Your task to perform on an android device: turn off priority inbox in the gmail app Image 0: 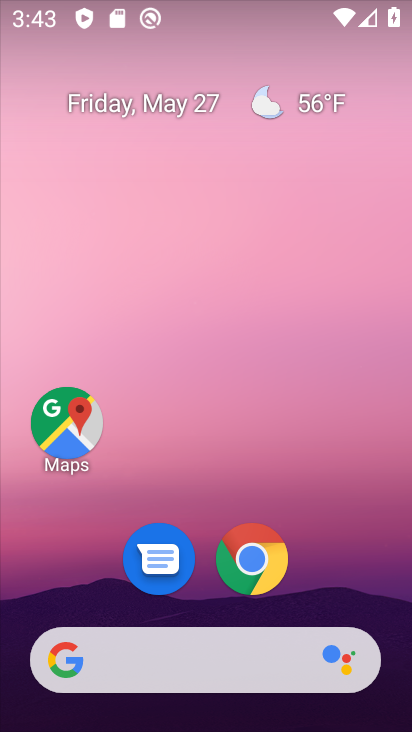
Step 0: drag from (70, 606) to (225, 222)
Your task to perform on an android device: turn off priority inbox in the gmail app Image 1: 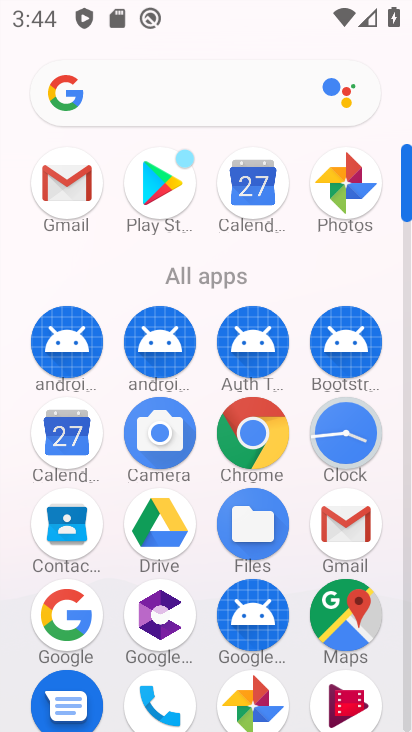
Step 1: drag from (152, 664) to (247, 456)
Your task to perform on an android device: turn off priority inbox in the gmail app Image 2: 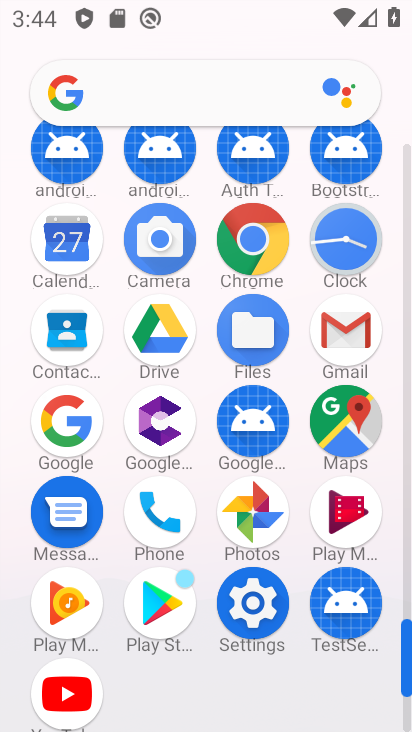
Step 2: click (358, 341)
Your task to perform on an android device: turn off priority inbox in the gmail app Image 3: 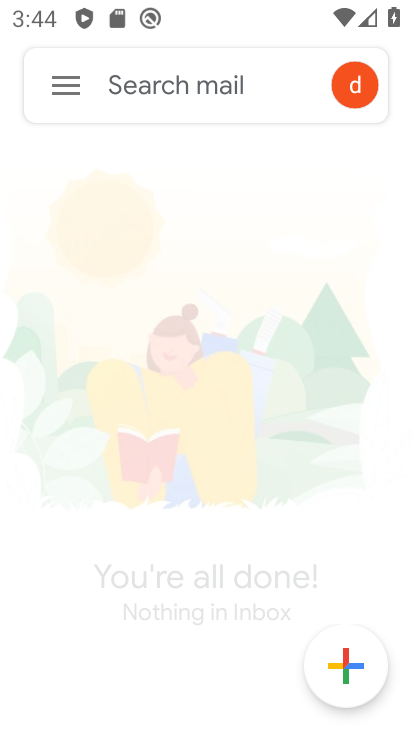
Step 3: click (51, 88)
Your task to perform on an android device: turn off priority inbox in the gmail app Image 4: 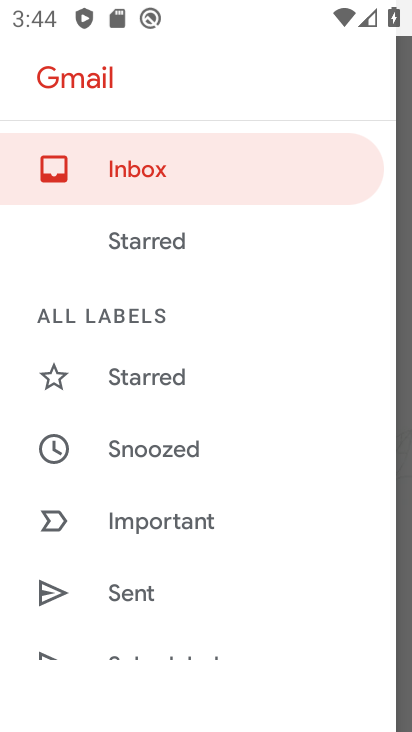
Step 4: drag from (137, 609) to (314, 155)
Your task to perform on an android device: turn off priority inbox in the gmail app Image 5: 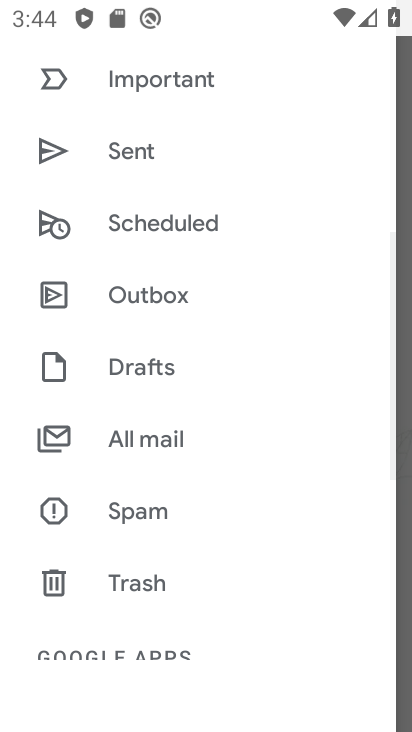
Step 5: drag from (224, 618) to (330, 196)
Your task to perform on an android device: turn off priority inbox in the gmail app Image 6: 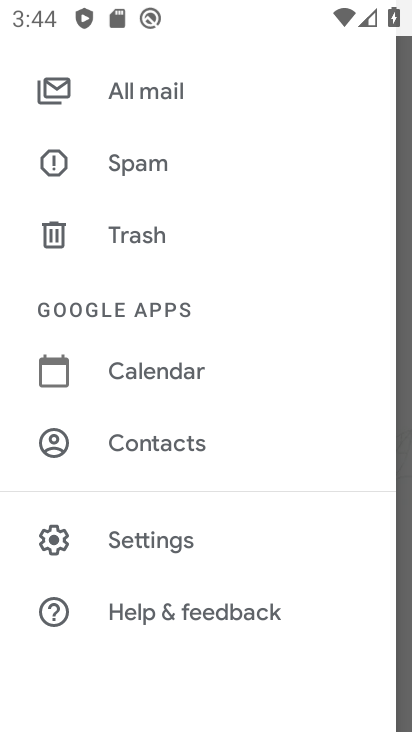
Step 6: click (214, 556)
Your task to perform on an android device: turn off priority inbox in the gmail app Image 7: 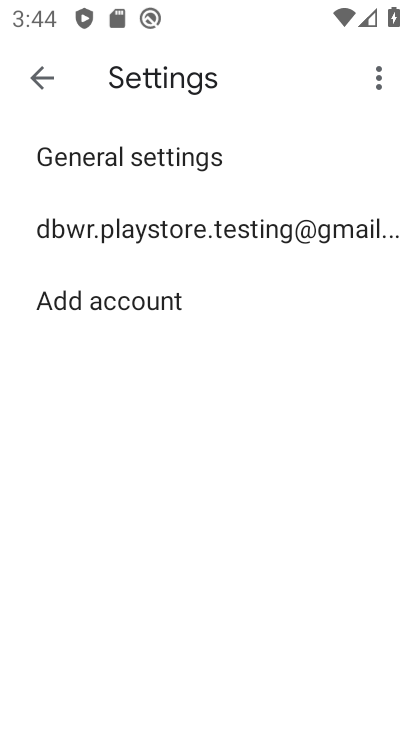
Step 7: click (287, 242)
Your task to perform on an android device: turn off priority inbox in the gmail app Image 8: 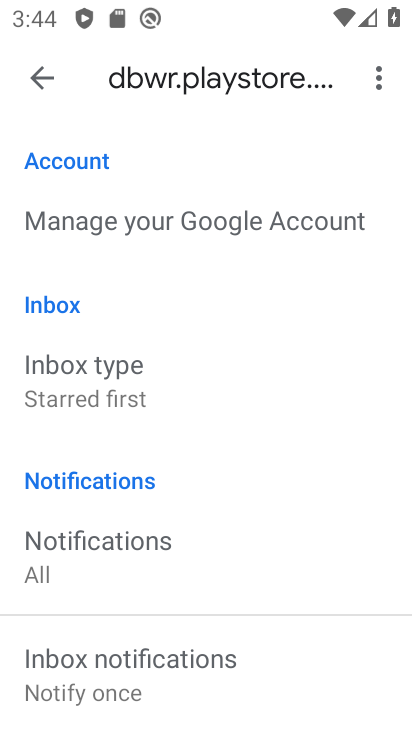
Step 8: drag from (157, 614) to (319, 192)
Your task to perform on an android device: turn off priority inbox in the gmail app Image 9: 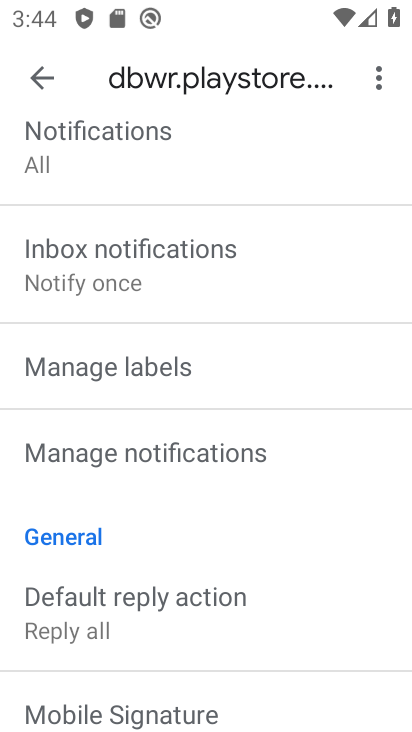
Step 9: drag from (237, 219) to (221, 578)
Your task to perform on an android device: turn off priority inbox in the gmail app Image 10: 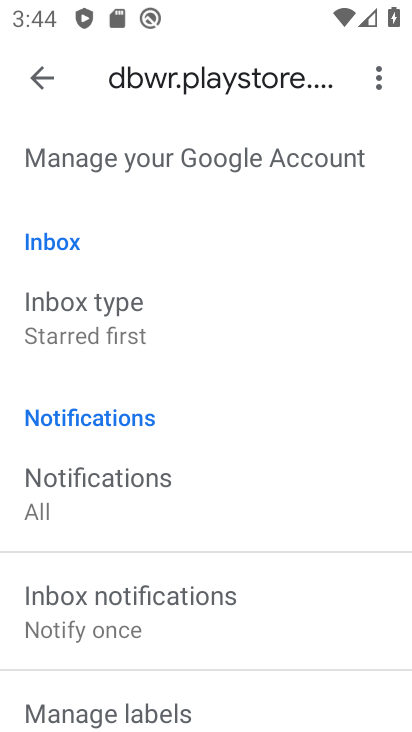
Step 10: click (210, 326)
Your task to perform on an android device: turn off priority inbox in the gmail app Image 11: 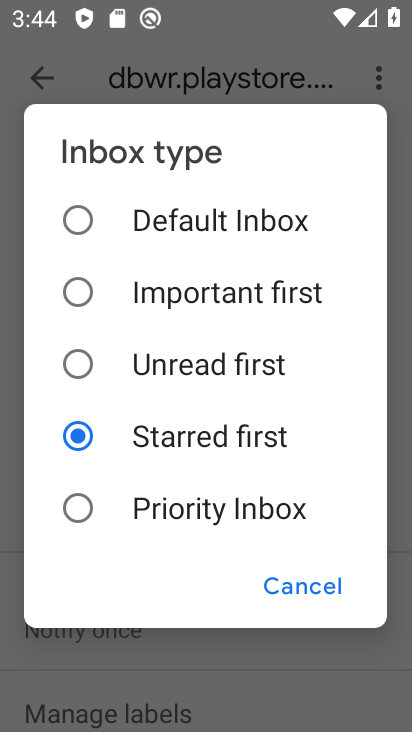
Step 11: task complete